Your task to perform on an android device: check storage Image 0: 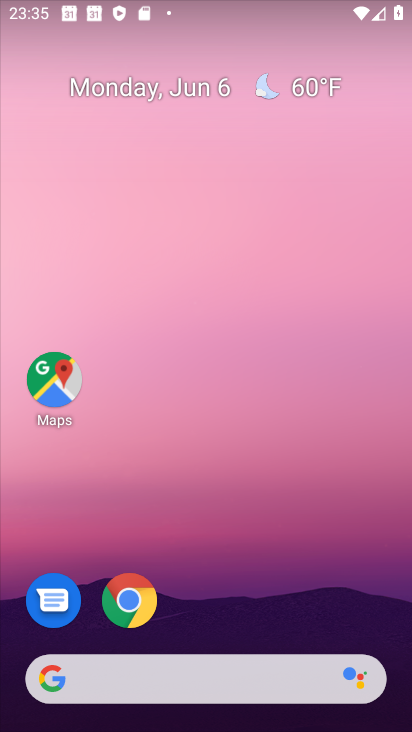
Step 0: drag from (236, 728) to (197, 111)
Your task to perform on an android device: check storage Image 1: 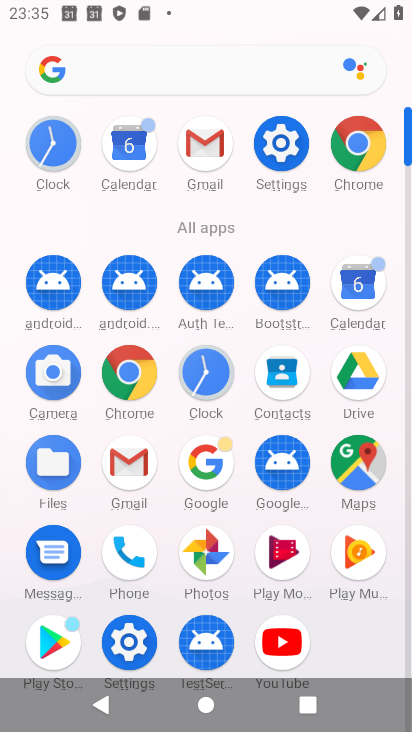
Step 1: click (273, 151)
Your task to perform on an android device: check storage Image 2: 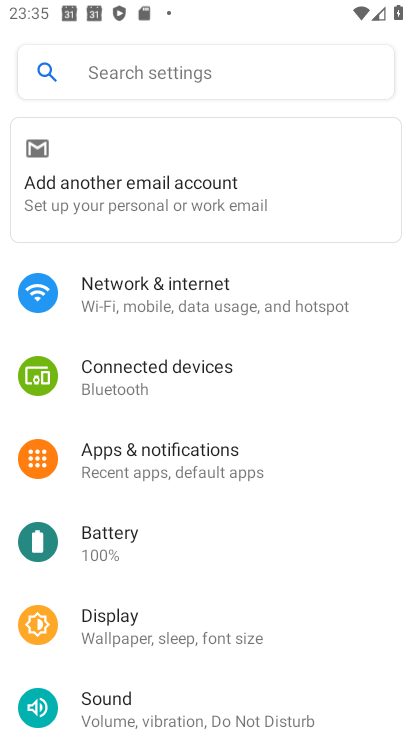
Step 2: drag from (146, 706) to (151, 359)
Your task to perform on an android device: check storage Image 3: 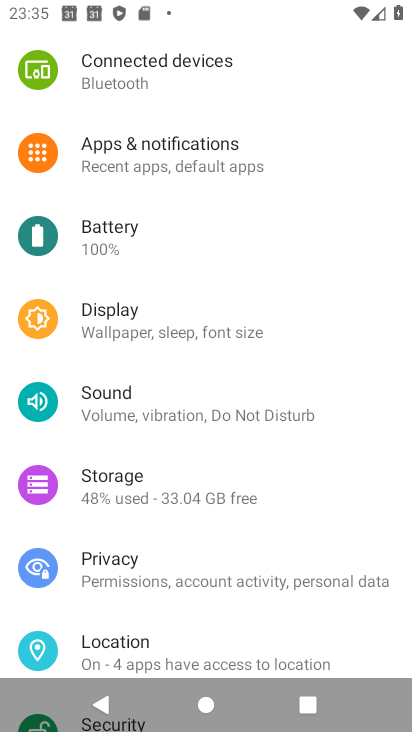
Step 3: click (122, 490)
Your task to perform on an android device: check storage Image 4: 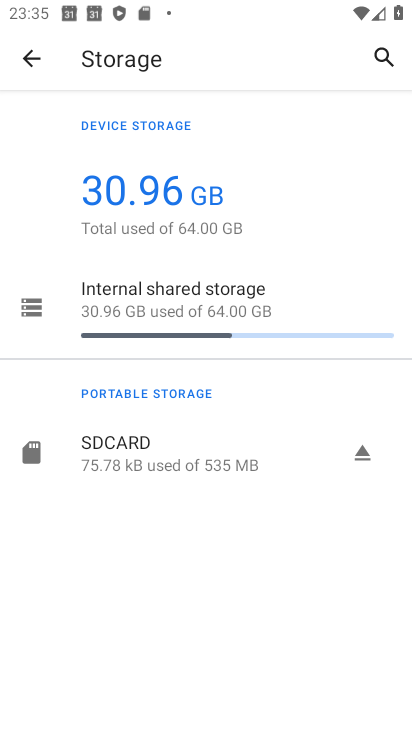
Step 4: task complete